Your task to perform on an android device: Search for dell xps on bestbuy, select the first entry, add it to the cart, then select checkout. Image 0: 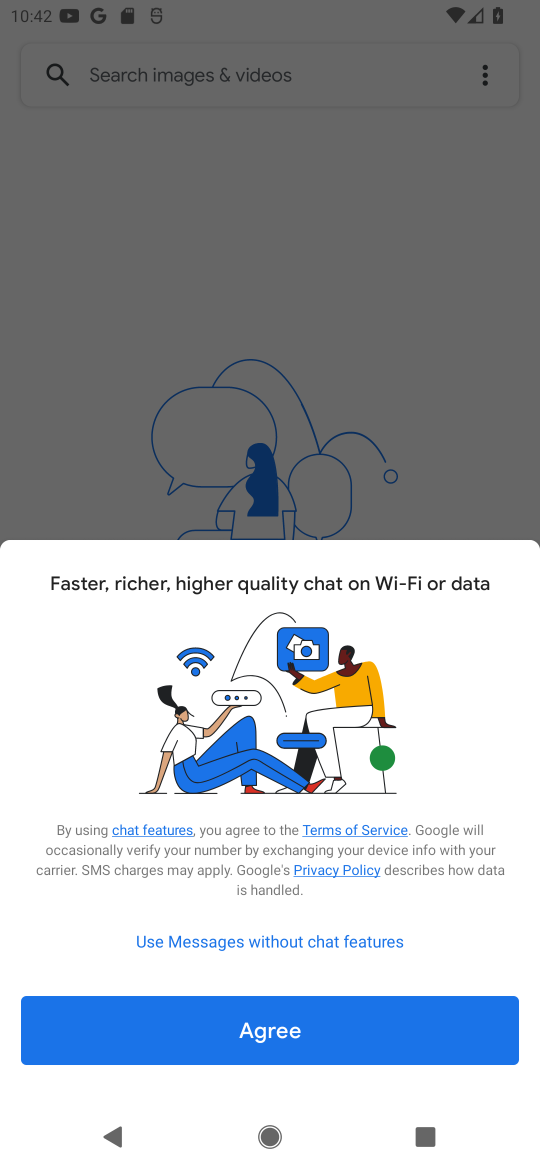
Step 0: press home button
Your task to perform on an android device: Search for dell xps on bestbuy, select the first entry, add it to the cart, then select checkout. Image 1: 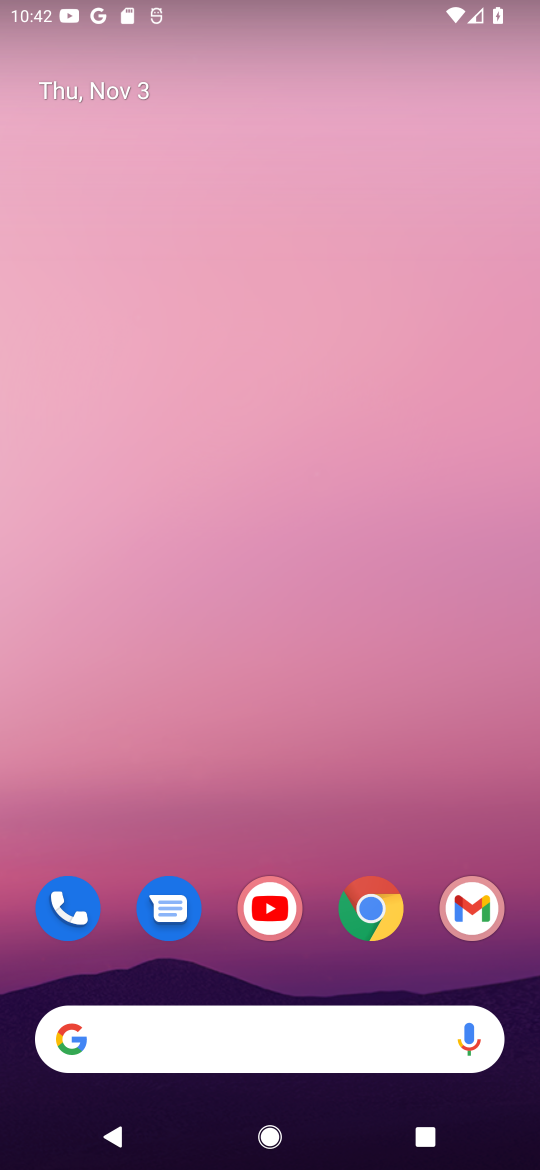
Step 1: click (387, 905)
Your task to perform on an android device: Search for dell xps on bestbuy, select the first entry, add it to the cart, then select checkout. Image 2: 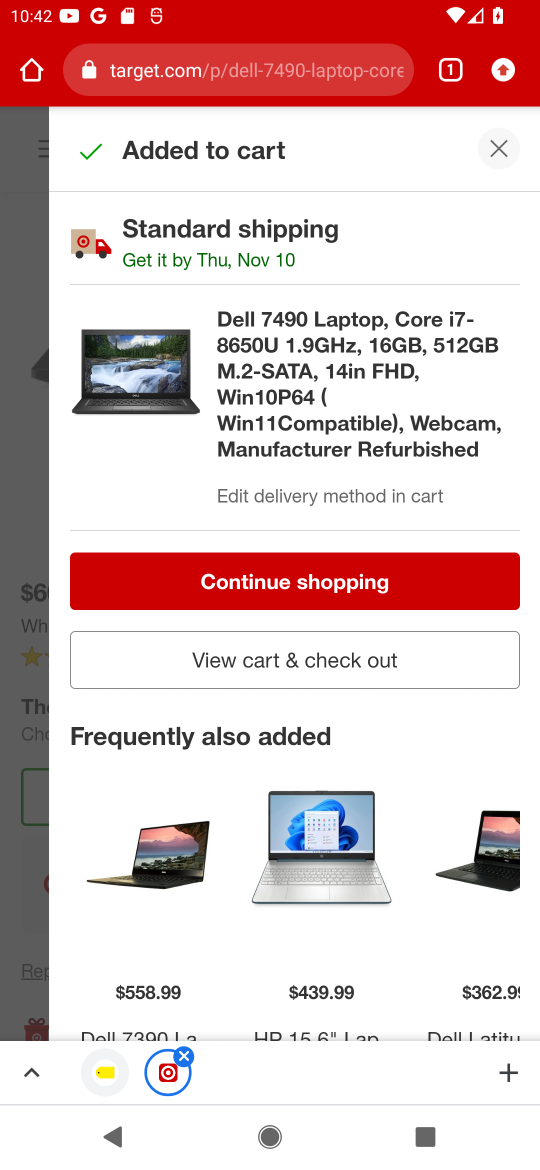
Step 2: click (233, 68)
Your task to perform on an android device: Search for dell xps on bestbuy, select the first entry, add it to the cart, then select checkout. Image 3: 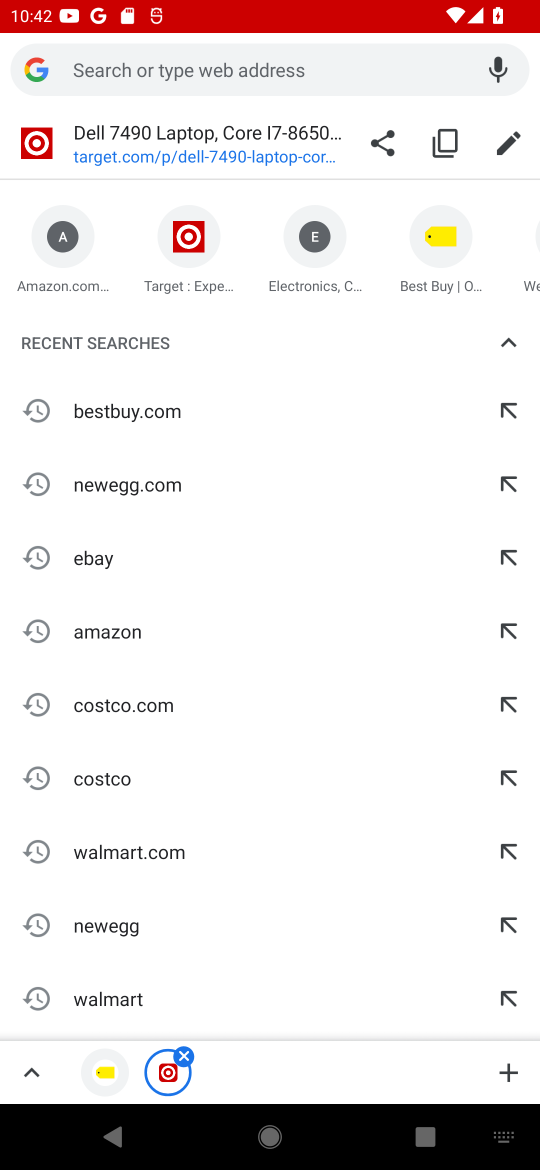
Step 3: click (129, 413)
Your task to perform on an android device: Search for dell xps on bestbuy, select the first entry, add it to the cart, then select checkout. Image 4: 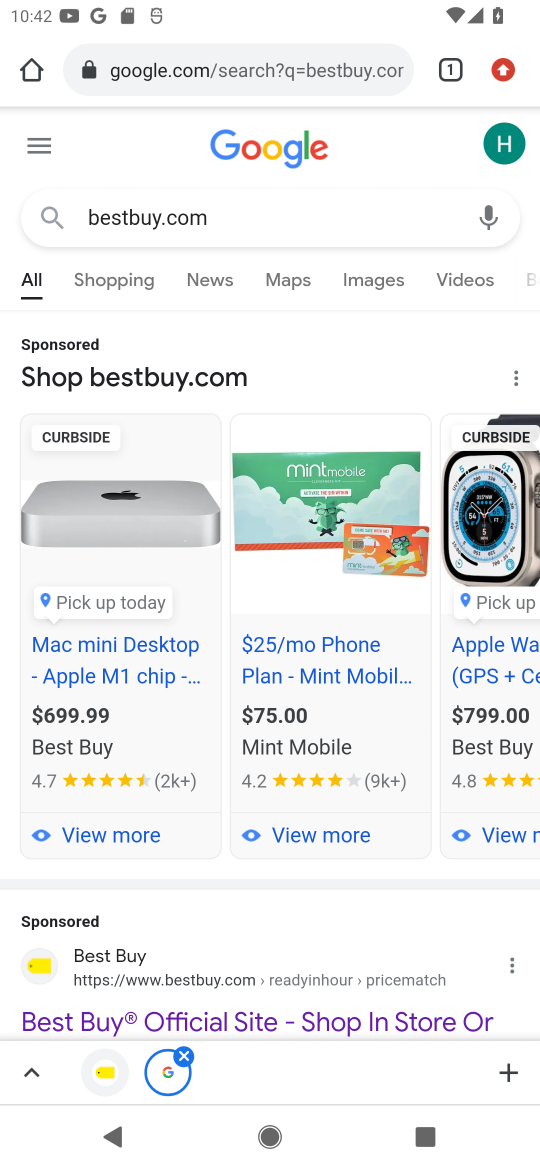
Step 4: click (181, 973)
Your task to perform on an android device: Search for dell xps on bestbuy, select the first entry, add it to the cart, then select checkout. Image 5: 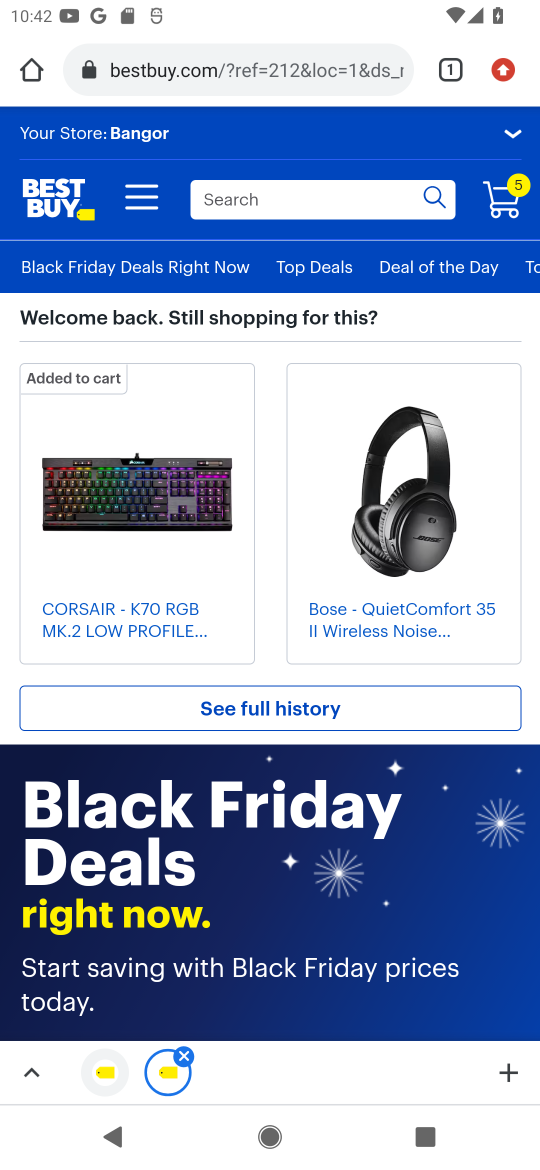
Step 5: click (374, 203)
Your task to perform on an android device: Search for dell xps on bestbuy, select the first entry, add it to the cart, then select checkout. Image 6: 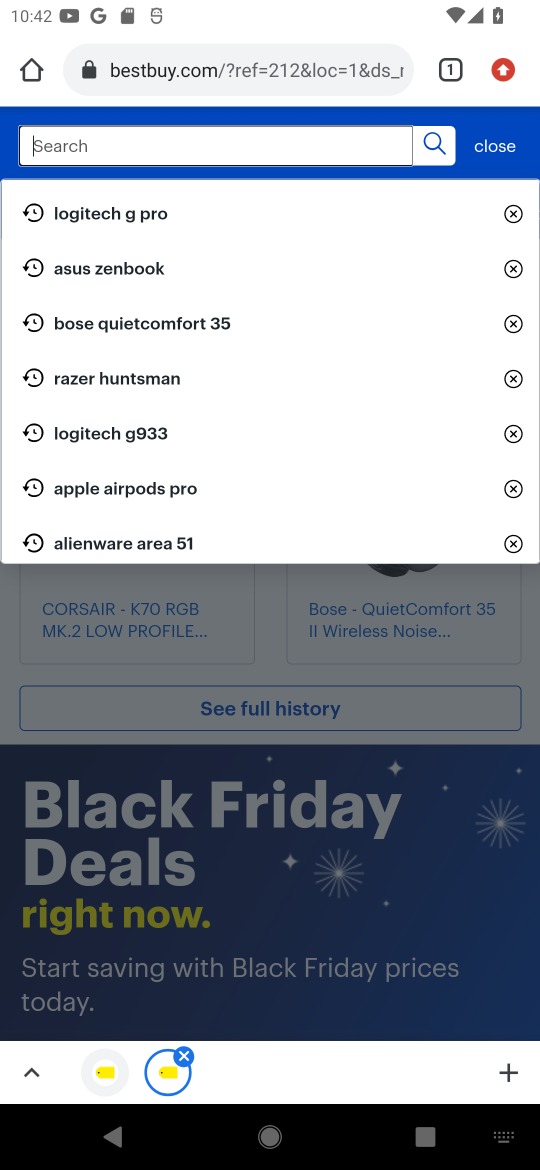
Step 6: press enter
Your task to perform on an android device: Search for dell xps on bestbuy, select the first entry, add it to the cart, then select checkout. Image 7: 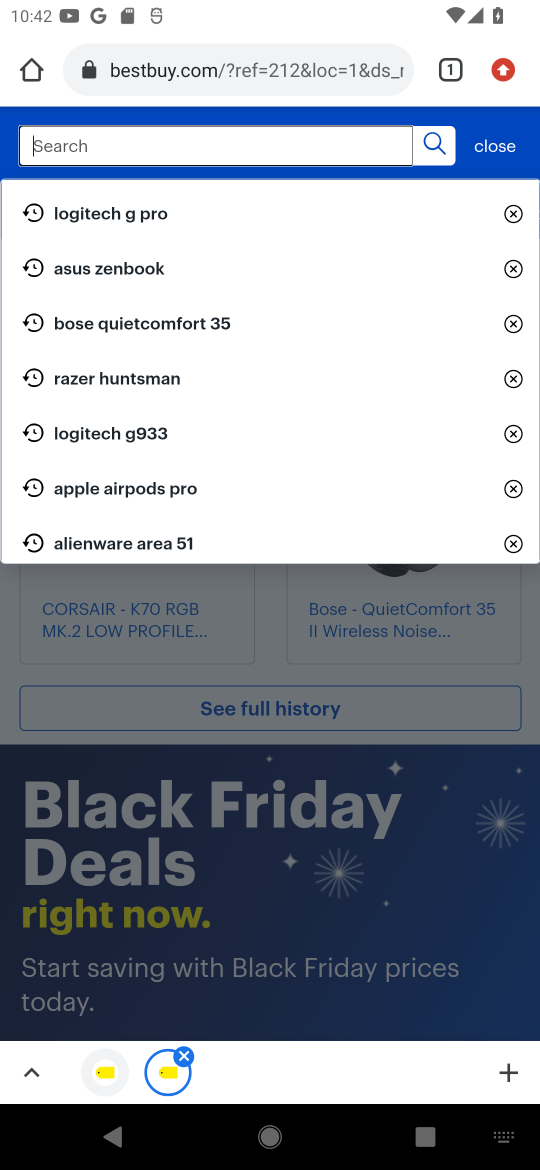
Step 7: type "dell xps"
Your task to perform on an android device: Search for dell xps on bestbuy, select the first entry, add it to the cart, then select checkout. Image 8: 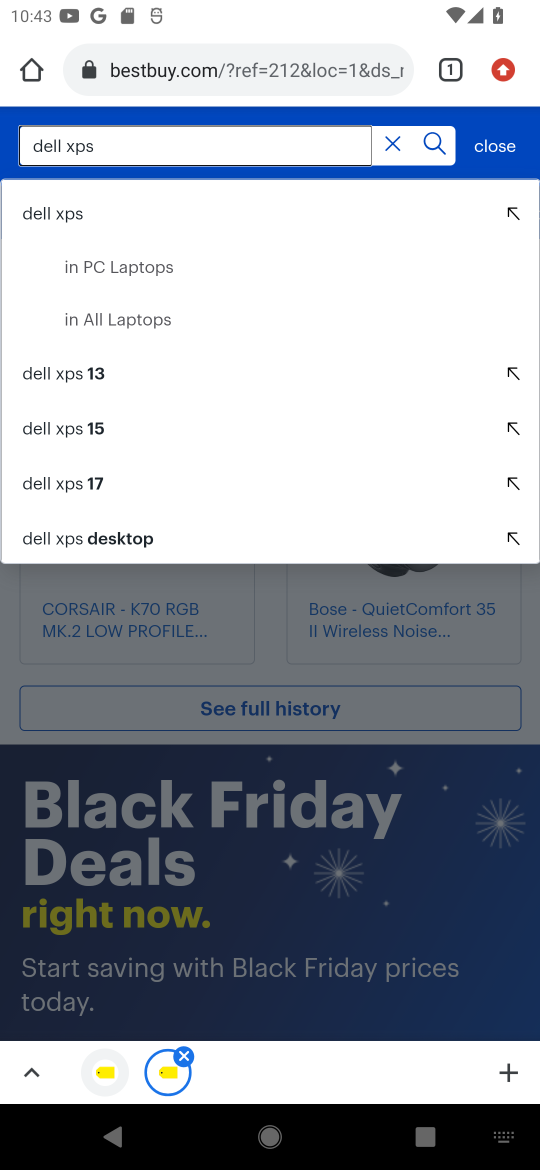
Step 8: click (49, 210)
Your task to perform on an android device: Search for dell xps on bestbuy, select the first entry, add it to the cart, then select checkout. Image 9: 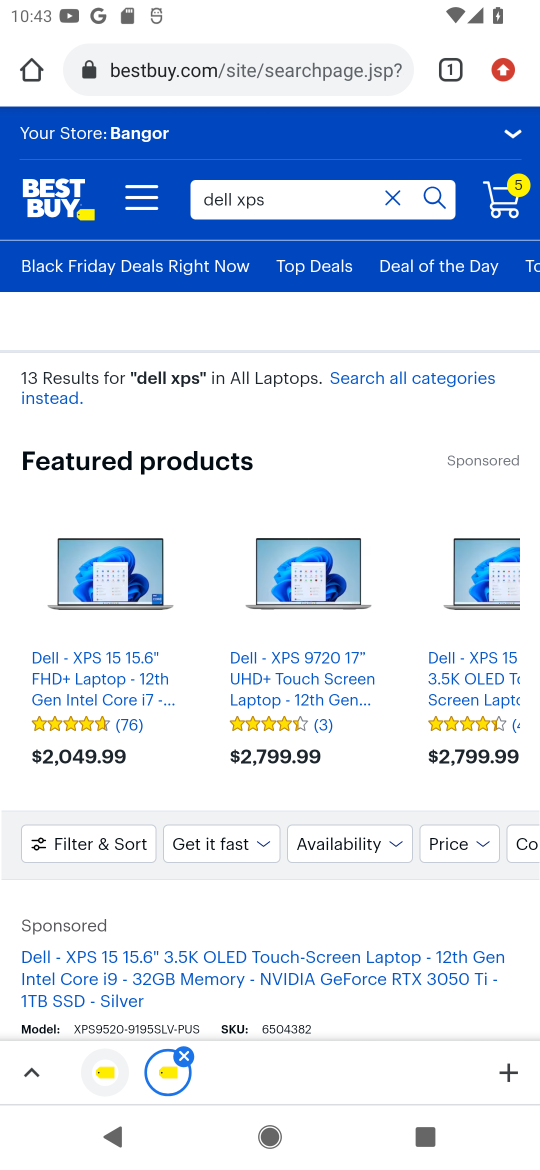
Step 9: click (203, 960)
Your task to perform on an android device: Search for dell xps on bestbuy, select the first entry, add it to the cart, then select checkout. Image 10: 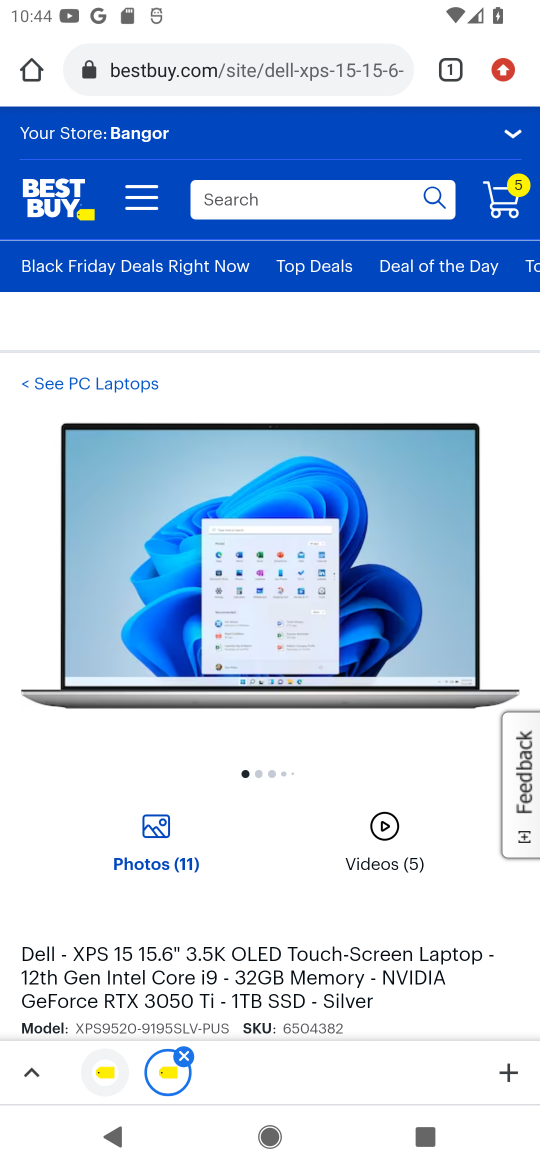
Step 10: drag from (412, 909) to (410, 453)
Your task to perform on an android device: Search for dell xps on bestbuy, select the first entry, add it to the cart, then select checkout. Image 11: 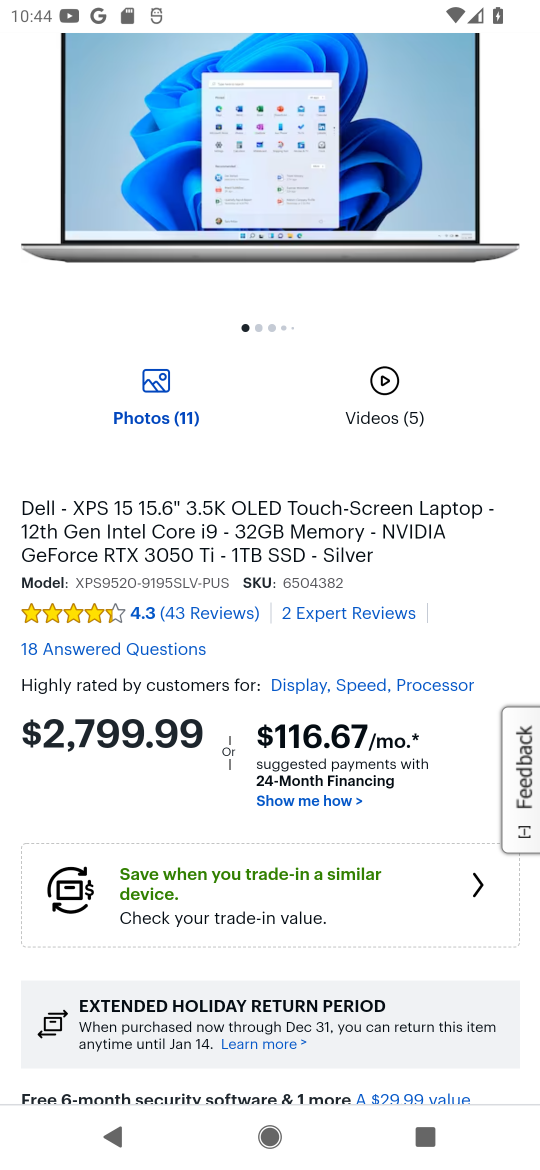
Step 11: drag from (270, 775) to (268, 329)
Your task to perform on an android device: Search for dell xps on bestbuy, select the first entry, add it to the cart, then select checkout. Image 12: 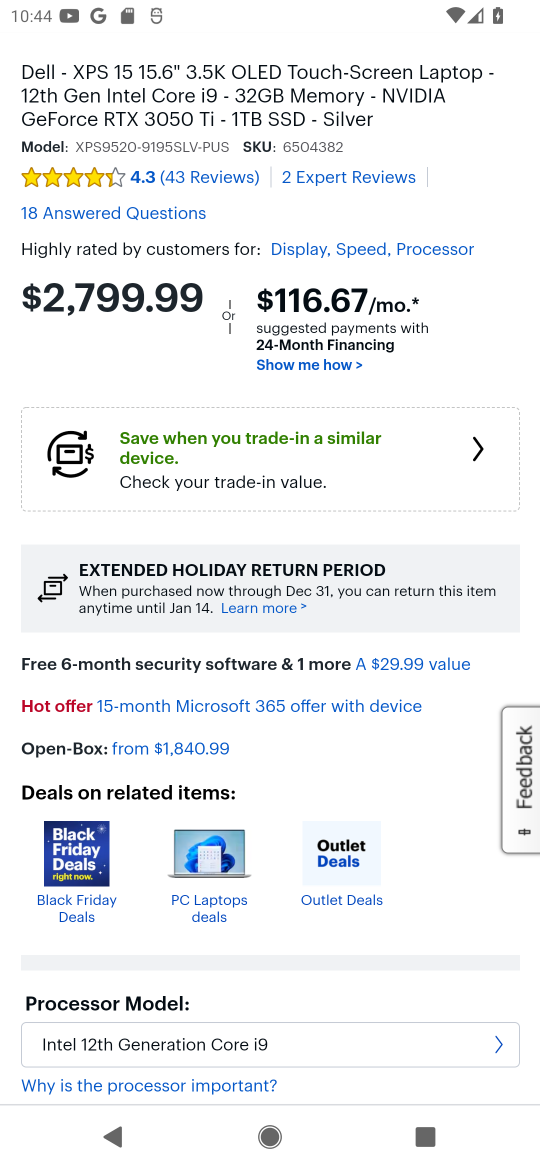
Step 12: drag from (426, 933) to (364, 456)
Your task to perform on an android device: Search for dell xps on bestbuy, select the first entry, add it to the cart, then select checkout. Image 13: 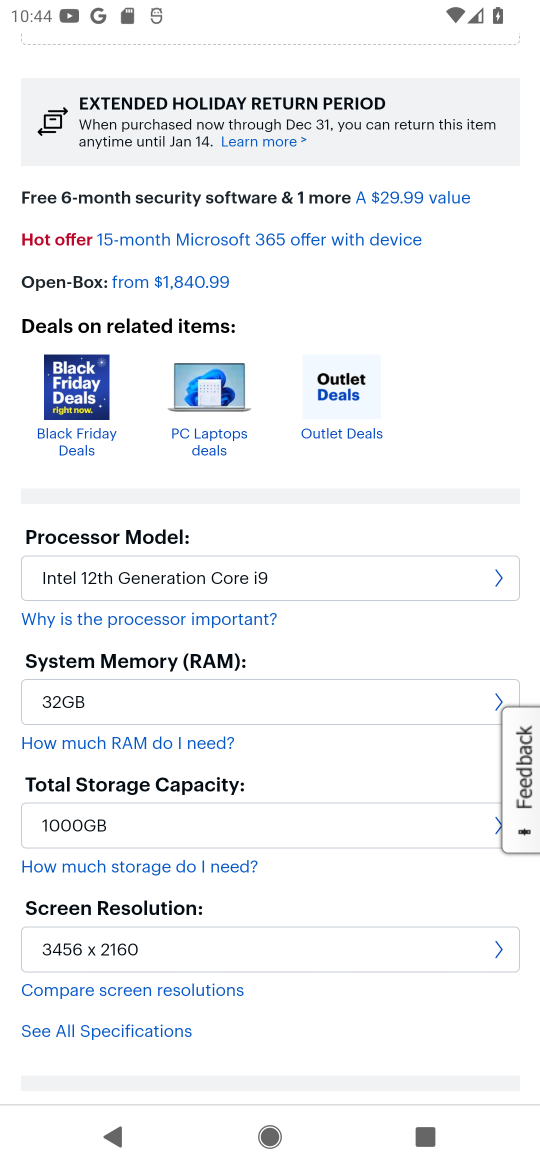
Step 13: drag from (276, 683) to (237, 290)
Your task to perform on an android device: Search for dell xps on bestbuy, select the first entry, add it to the cart, then select checkout. Image 14: 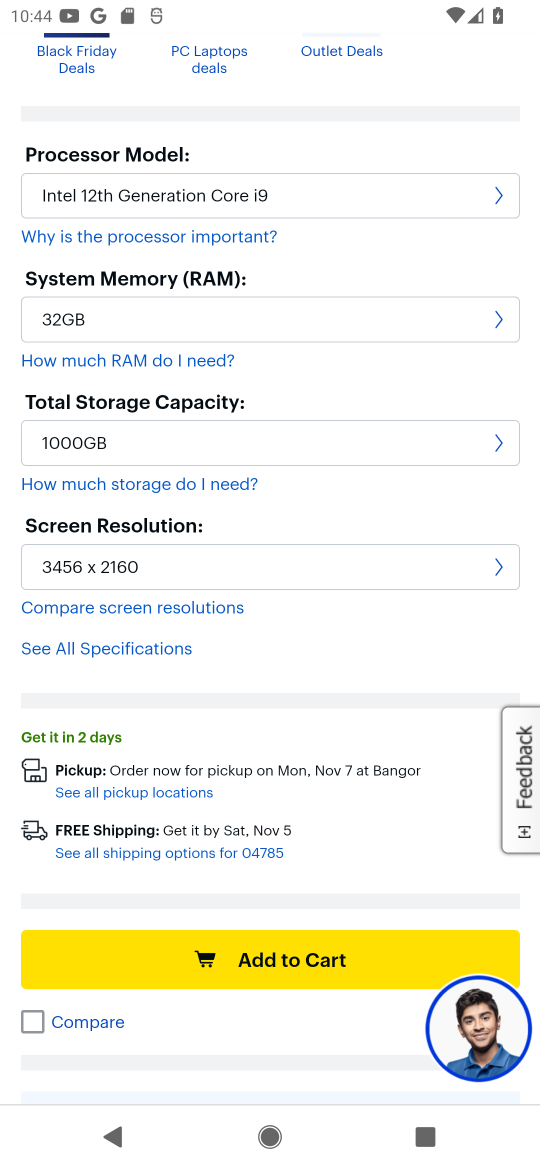
Step 14: click (328, 953)
Your task to perform on an android device: Search for dell xps on bestbuy, select the first entry, add it to the cart, then select checkout. Image 15: 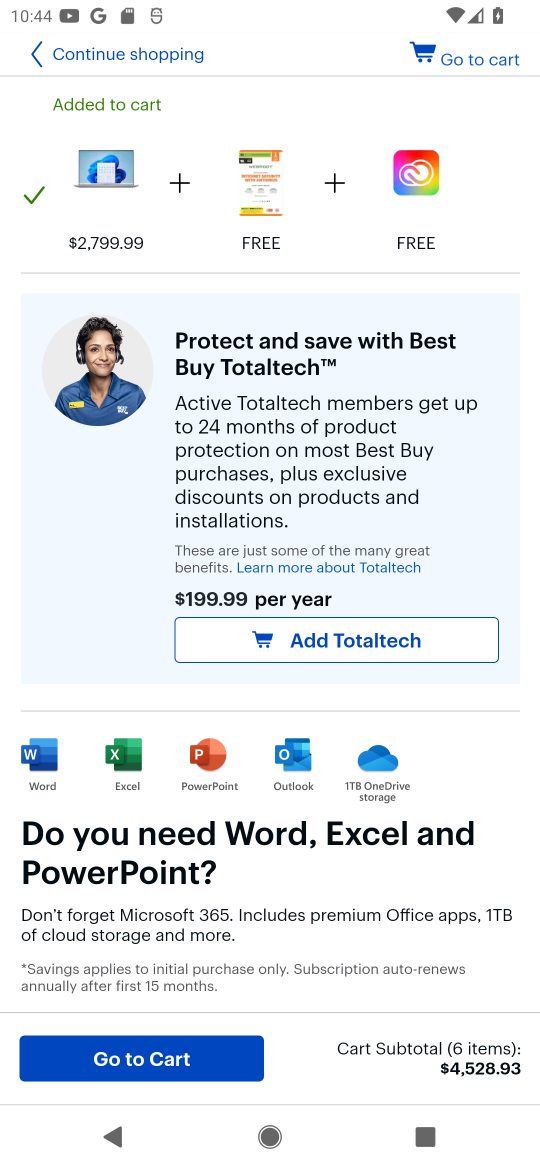
Step 15: click (188, 1051)
Your task to perform on an android device: Search for dell xps on bestbuy, select the first entry, add it to the cart, then select checkout. Image 16: 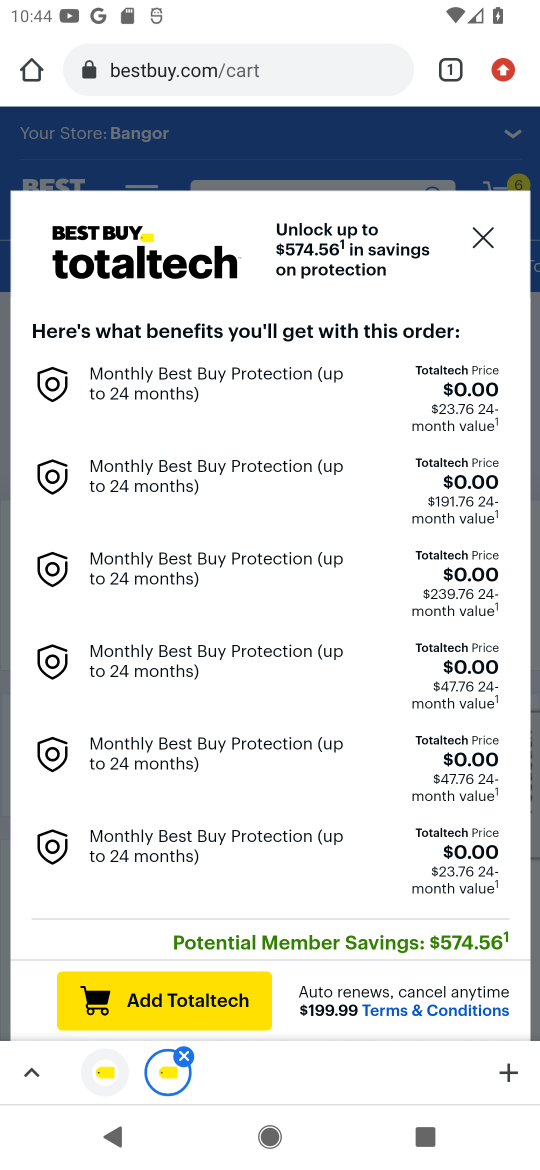
Step 16: click (493, 238)
Your task to perform on an android device: Search for dell xps on bestbuy, select the first entry, add it to the cart, then select checkout. Image 17: 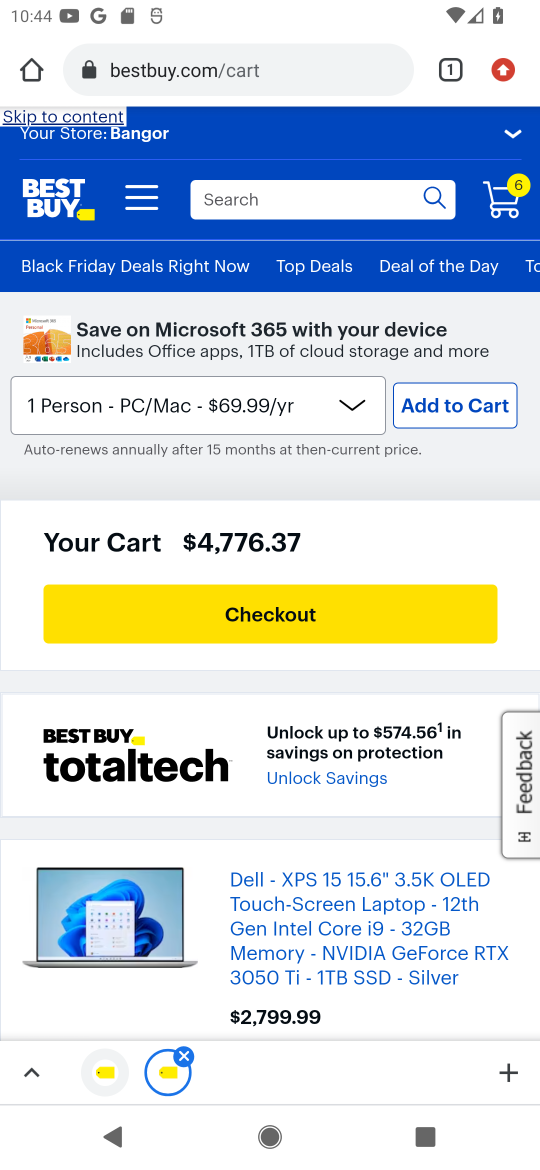
Step 17: click (392, 615)
Your task to perform on an android device: Search for dell xps on bestbuy, select the first entry, add it to the cart, then select checkout. Image 18: 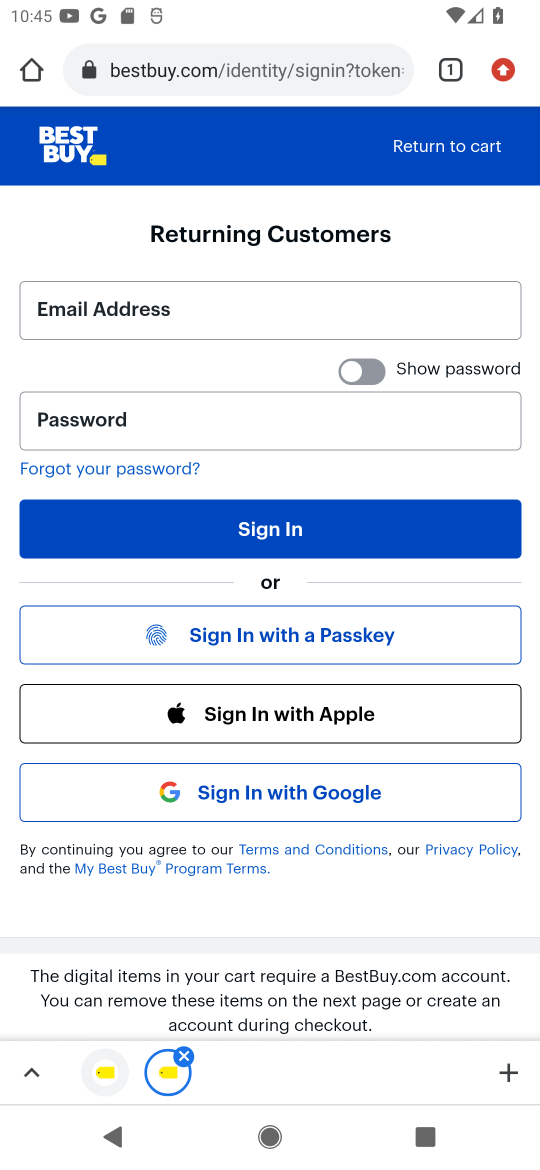
Step 18: task complete